Your task to perform on an android device: all mails in gmail Image 0: 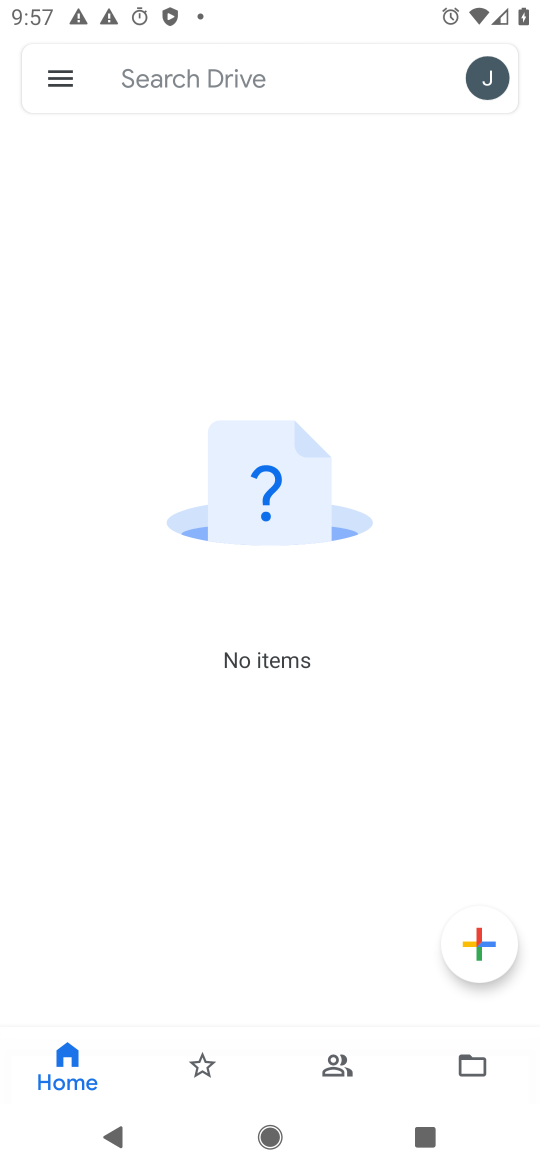
Step 0: press home button
Your task to perform on an android device: all mails in gmail Image 1: 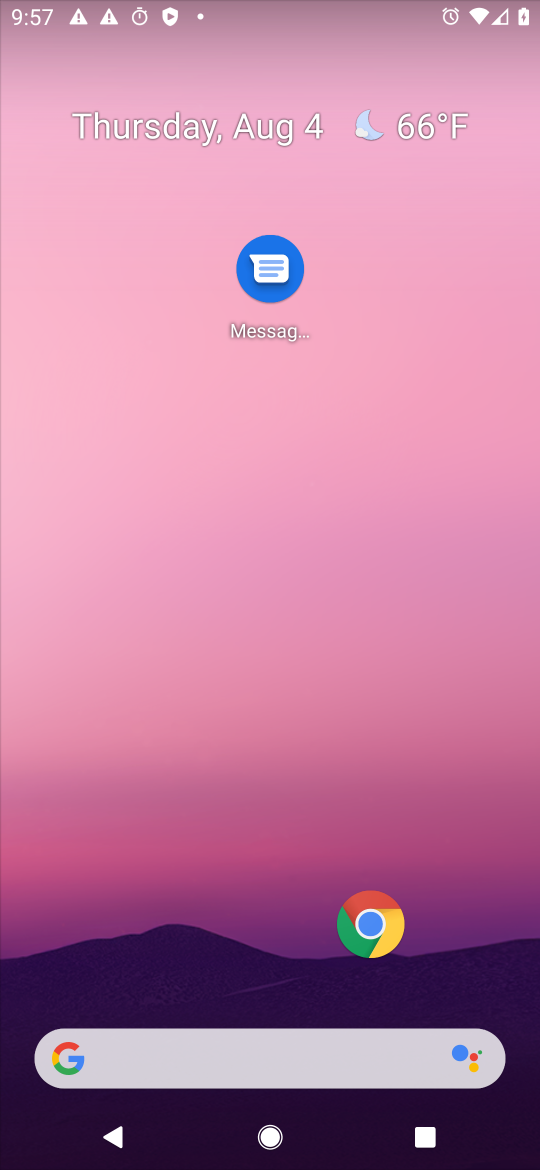
Step 1: drag from (258, 771) to (306, 307)
Your task to perform on an android device: all mails in gmail Image 2: 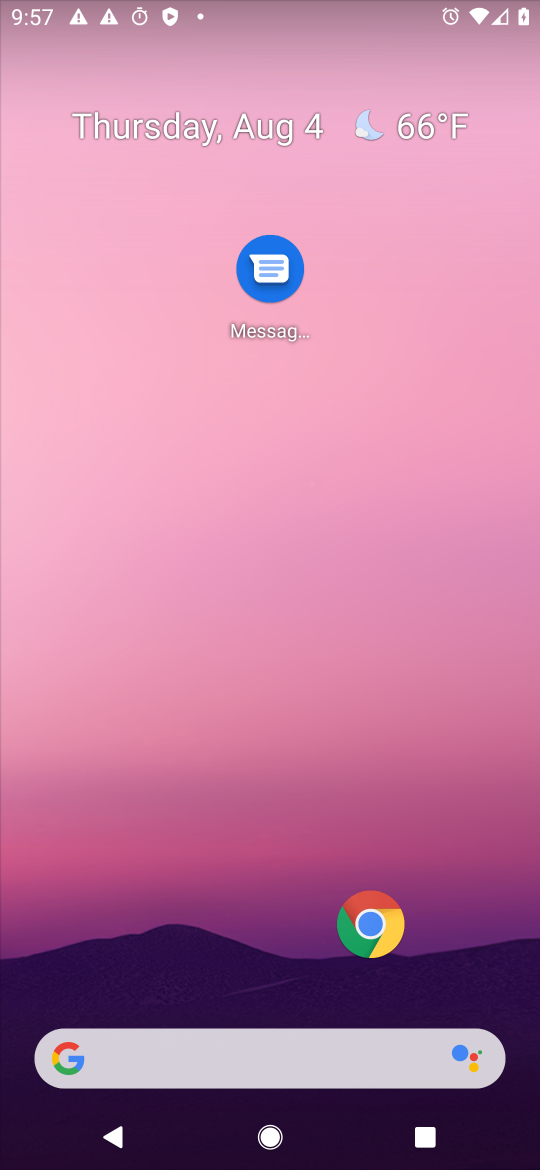
Step 2: drag from (257, 926) to (274, 101)
Your task to perform on an android device: all mails in gmail Image 3: 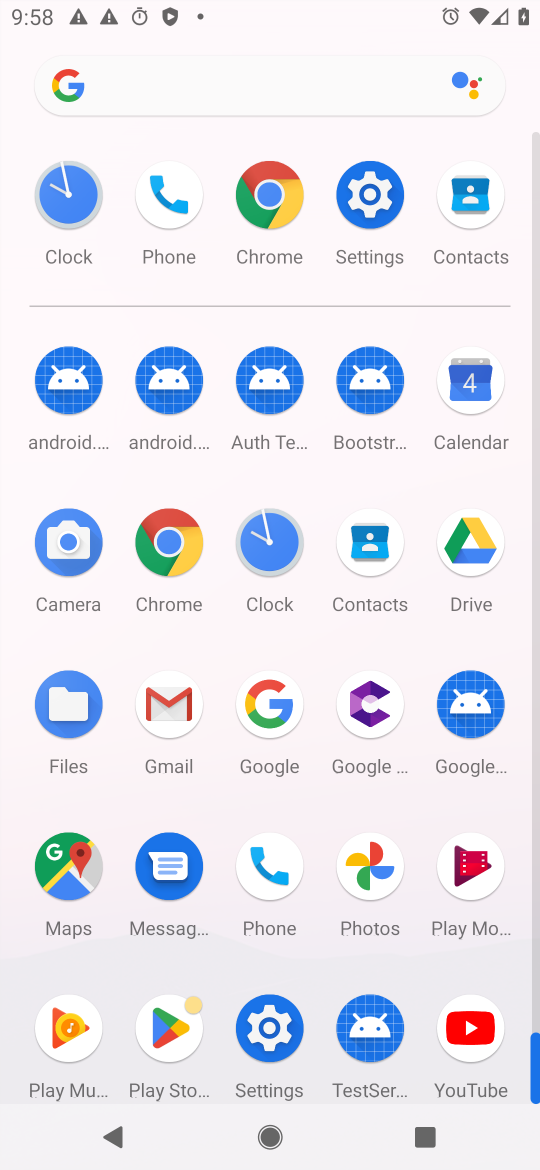
Step 3: click (168, 692)
Your task to perform on an android device: all mails in gmail Image 4: 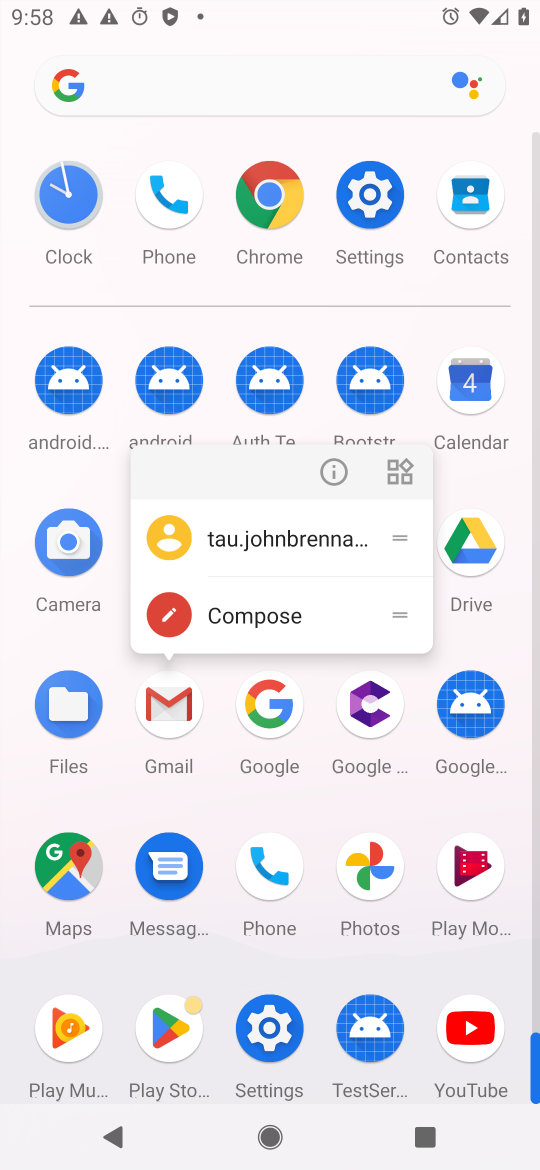
Step 4: click (334, 468)
Your task to perform on an android device: all mails in gmail Image 5: 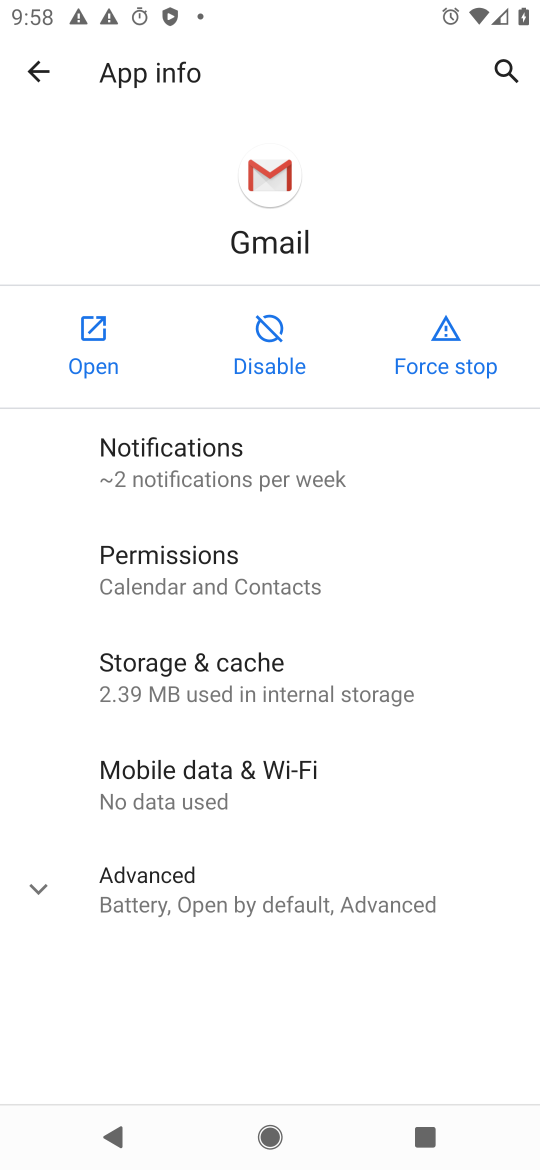
Step 5: click (99, 336)
Your task to perform on an android device: all mails in gmail Image 6: 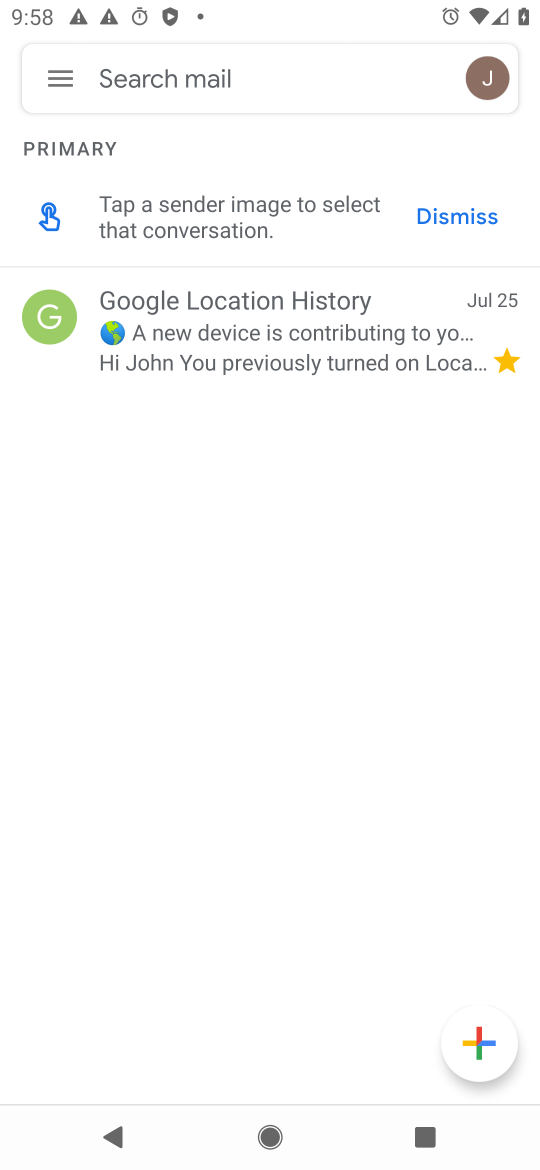
Step 6: click (46, 66)
Your task to perform on an android device: all mails in gmail Image 7: 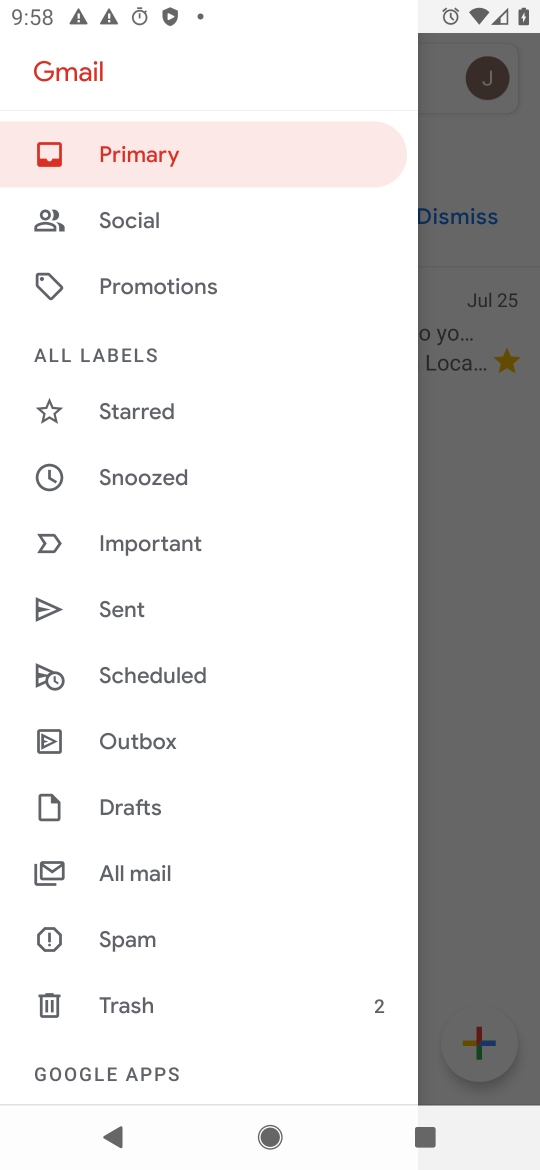
Step 7: click (142, 855)
Your task to perform on an android device: all mails in gmail Image 8: 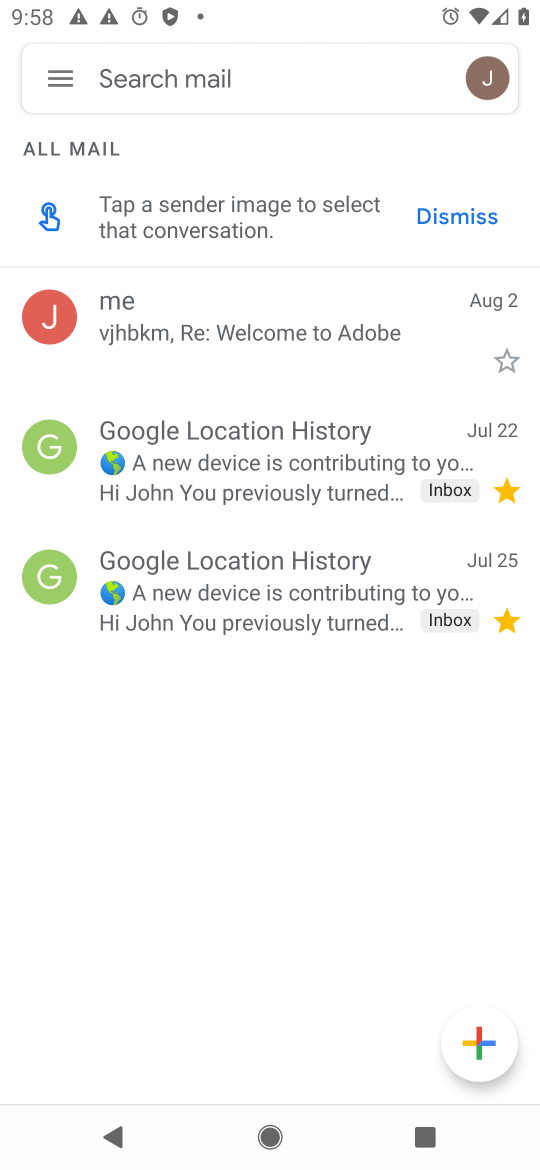
Step 8: drag from (183, 747) to (227, 397)
Your task to perform on an android device: all mails in gmail Image 9: 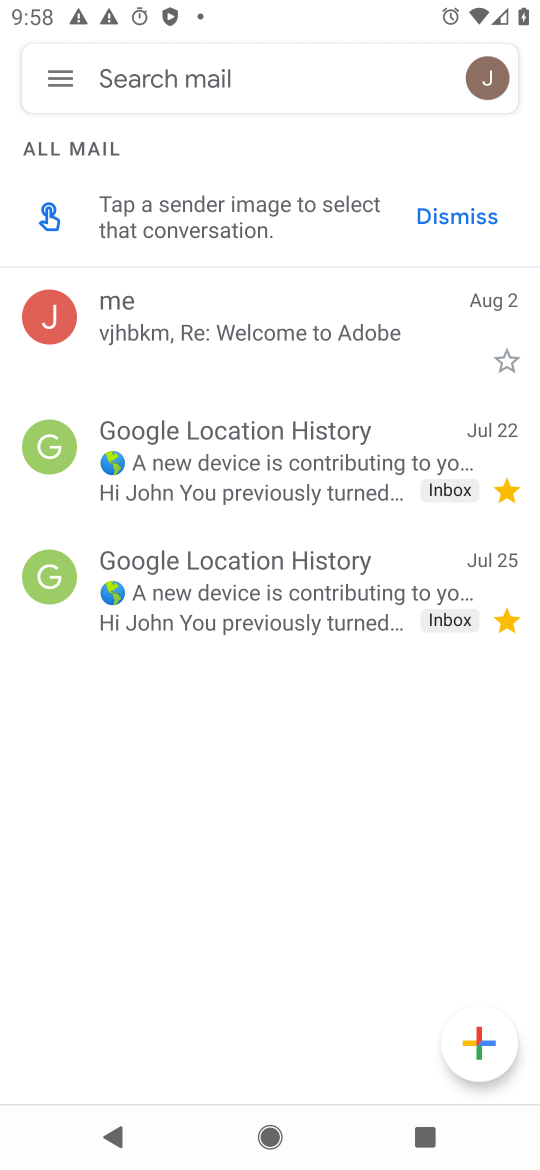
Step 9: click (46, 78)
Your task to perform on an android device: all mails in gmail Image 10: 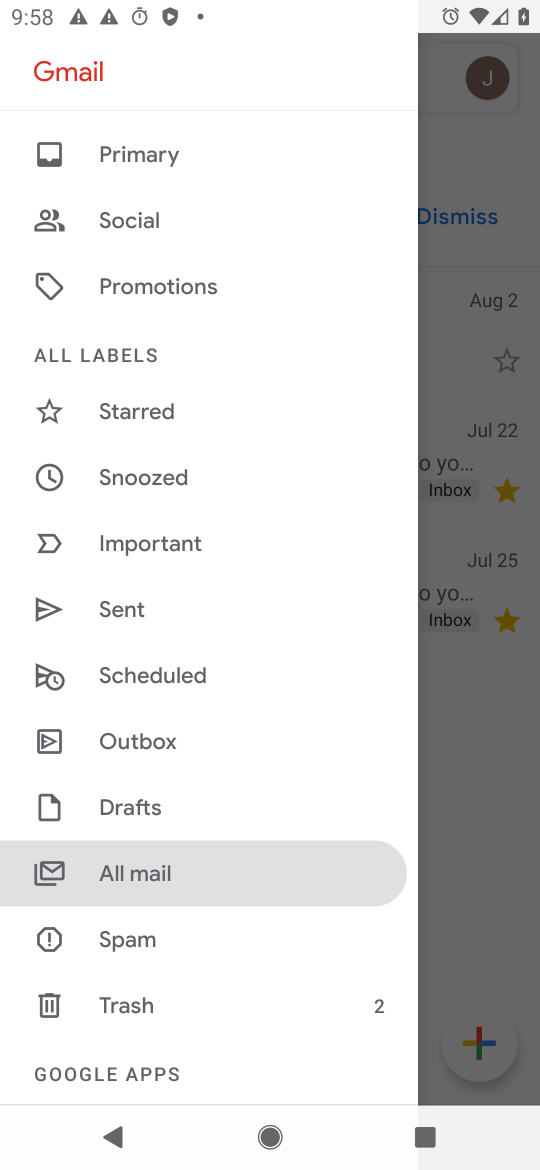
Step 10: click (212, 876)
Your task to perform on an android device: all mails in gmail Image 11: 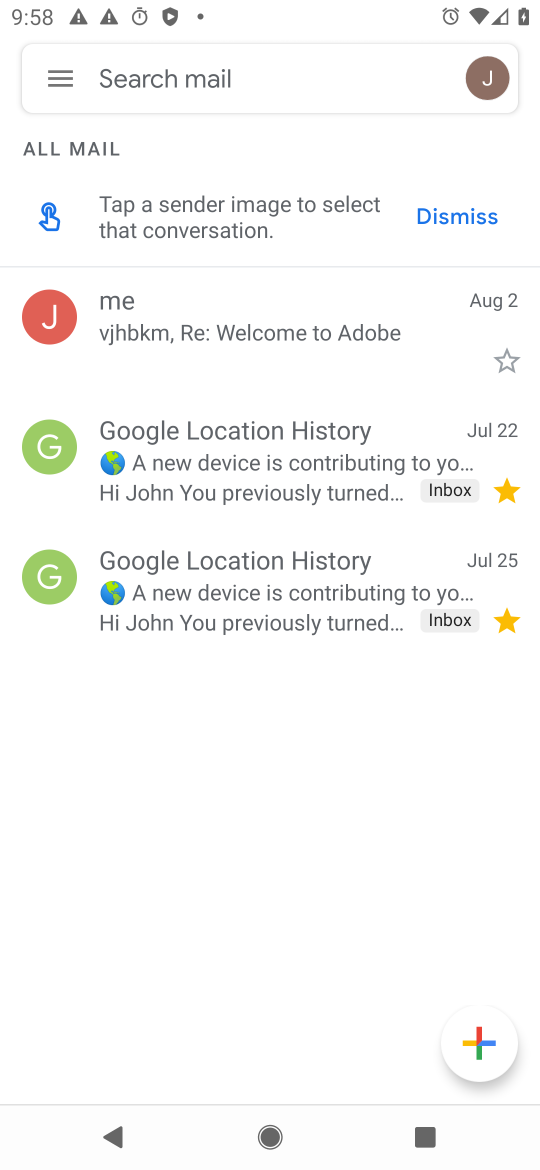
Step 11: task complete